Your task to perform on an android device: turn off notifications in google photos Image 0: 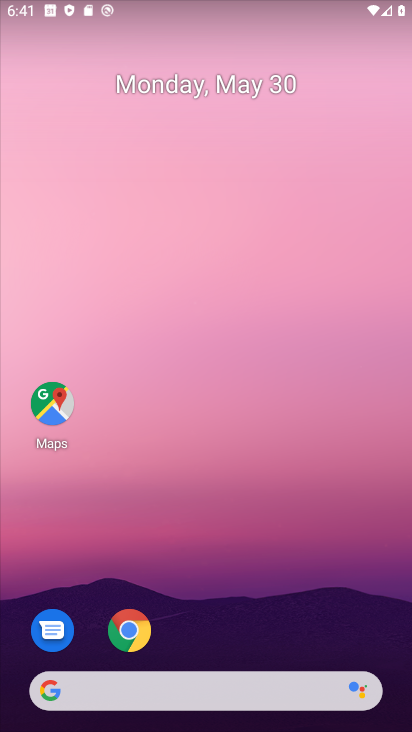
Step 0: drag from (337, 638) to (241, 43)
Your task to perform on an android device: turn off notifications in google photos Image 1: 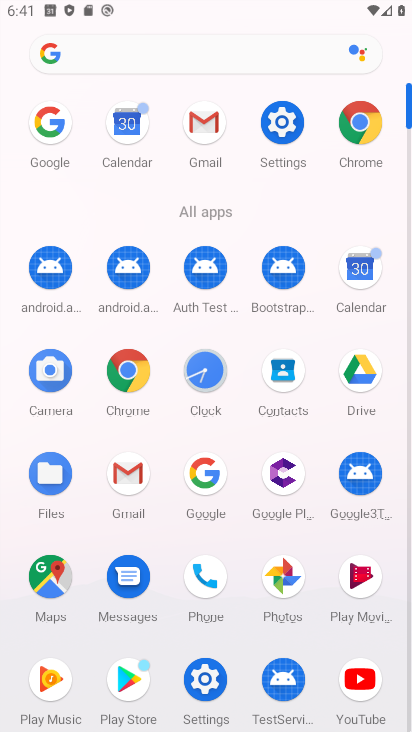
Step 1: click (280, 594)
Your task to perform on an android device: turn off notifications in google photos Image 2: 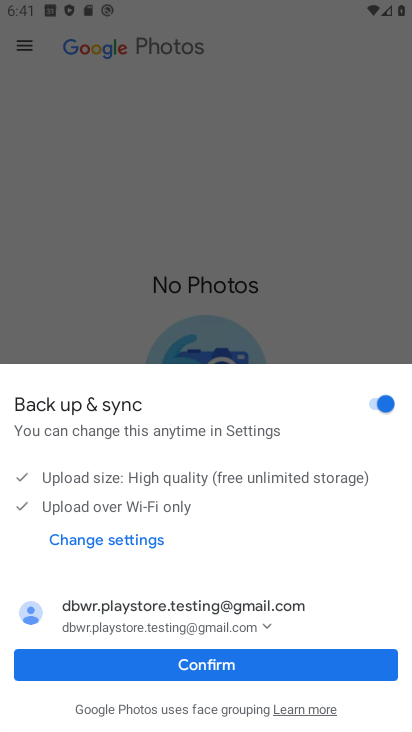
Step 2: click (199, 670)
Your task to perform on an android device: turn off notifications in google photos Image 3: 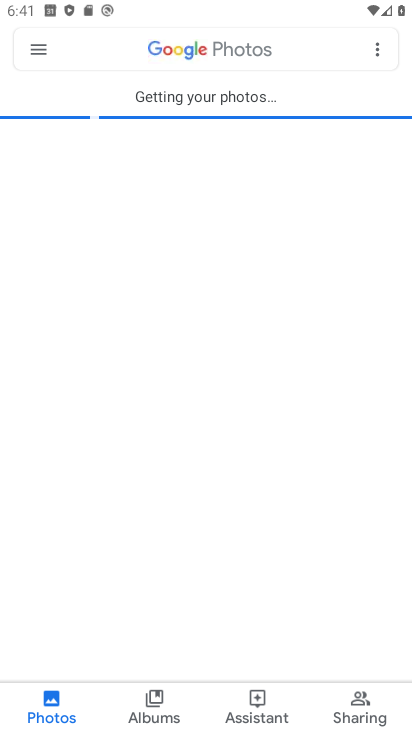
Step 3: click (23, 42)
Your task to perform on an android device: turn off notifications in google photos Image 4: 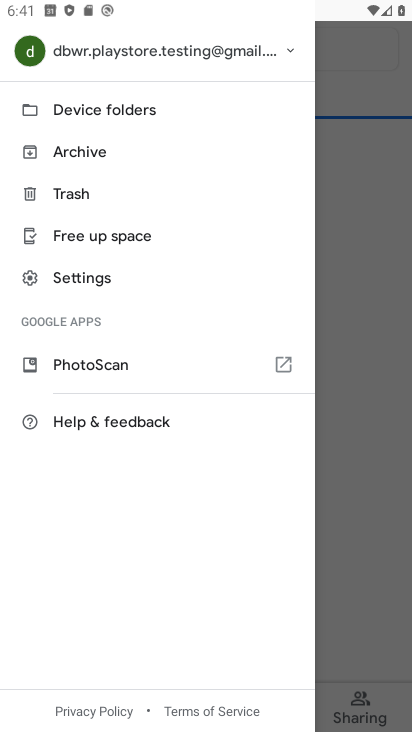
Step 4: click (110, 278)
Your task to perform on an android device: turn off notifications in google photos Image 5: 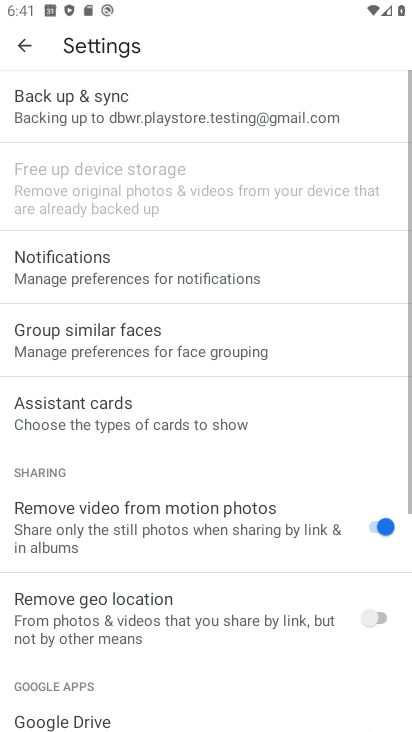
Step 5: click (188, 283)
Your task to perform on an android device: turn off notifications in google photos Image 6: 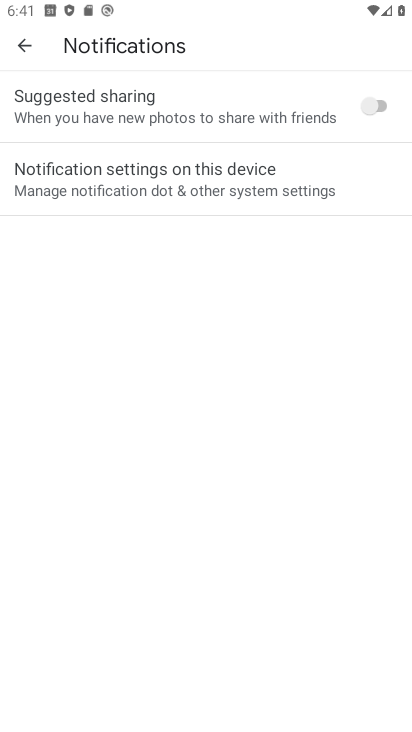
Step 6: task complete